Your task to perform on an android device: open app "Google Photos" (install if not already installed) Image 0: 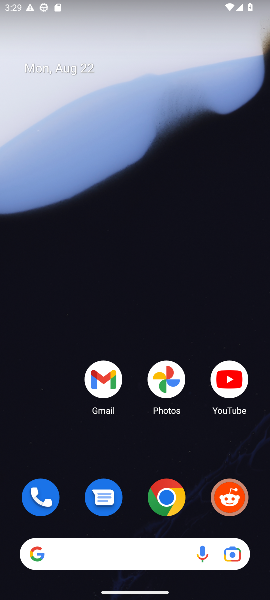
Step 0: drag from (136, 451) to (163, 104)
Your task to perform on an android device: open app "Google Photos" (install if not already installed) Image 1: 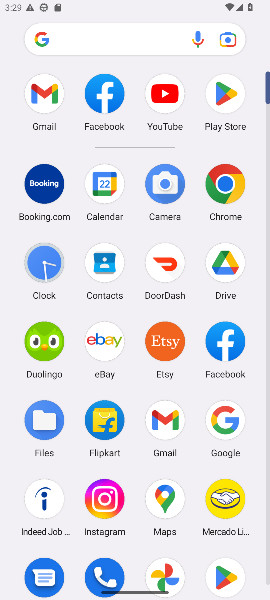
Step 1: click (228, 90)
Your task to perform on an android device: open app "Google Photos" (install if not already installed) Image 2: 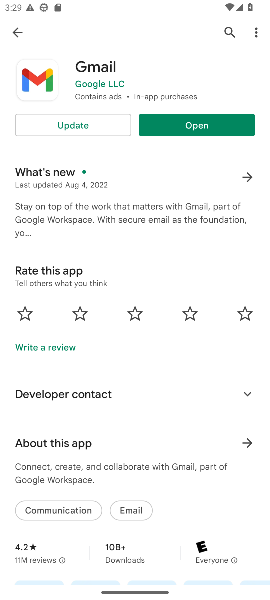
Step 2: click (224, 29)
Your task to perform on an android device: open app "Google Photos" (install if not already installed) Image 3: 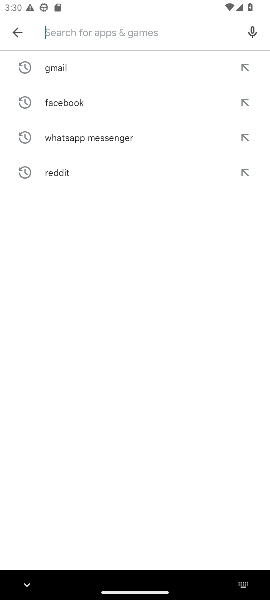
Step 3: type "Google Photos"
Your task to perform on an android device: open app "Google Photos" (install if not already installed) Image 4: 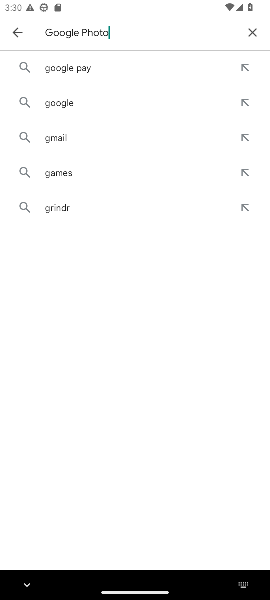
Step 4: type ""
Your task to perform on an android device: open app "Google Photos" (install if not already installed) Image 5: 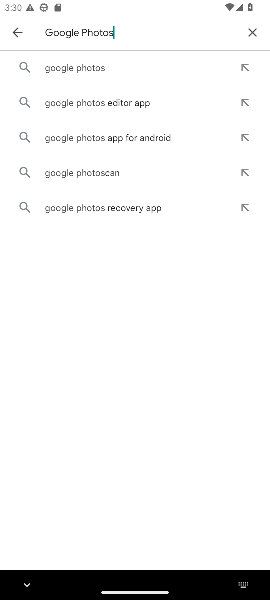
Step 5: click (115, 72)
Your task to perform on an android device: open app "Google Photos" (install if not already installed) Image 6: 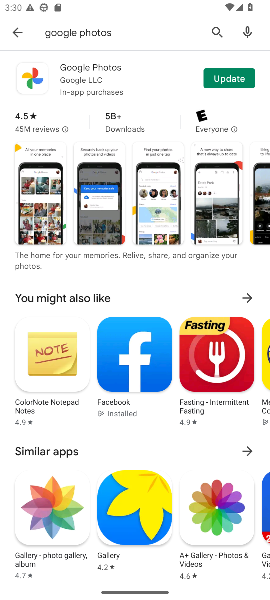
Step 6: click (146, 71)
Your task to perform on an android device: open app "Google Photos" (install if not already installed) Image 7: 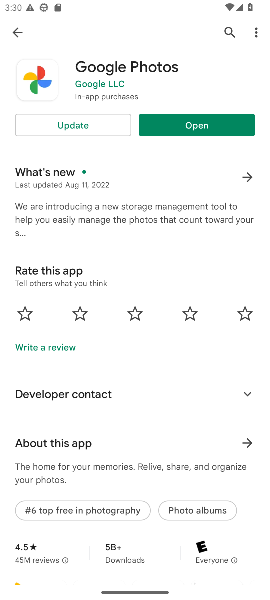
Step 7: click (201, 120)
Your task to perform on an android device: open app "Google Photos" (install if not already installed) Image 8: 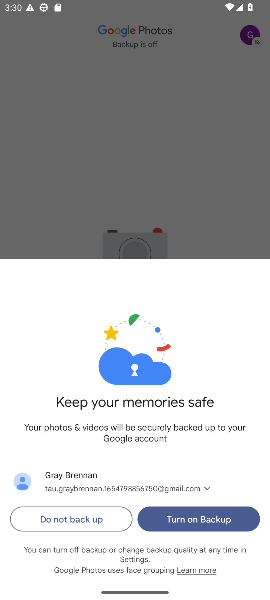
Step 8: click (90, 522)
Your task to perform on an android device: open app "Google Photos" (install if not already installed) Image 9: 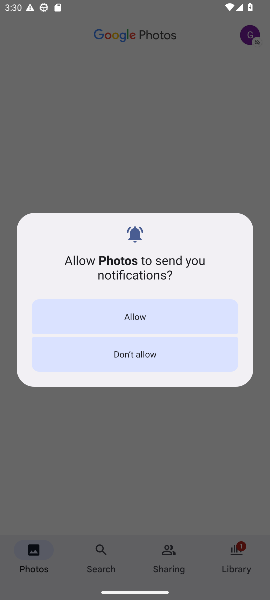
Step 9: click (106, 319)
Your task to perform on an android device: open app "Google Photos" (install if not already installed) Image 10: 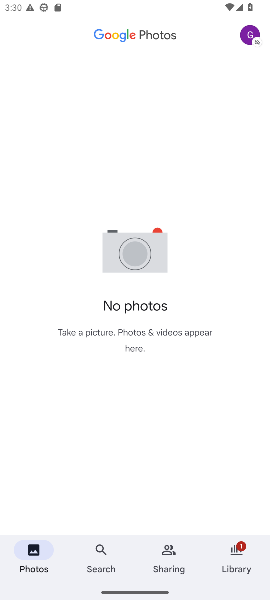
Step 10: task complete